Your task to perform on an android device: set the stopwatch Image 0: 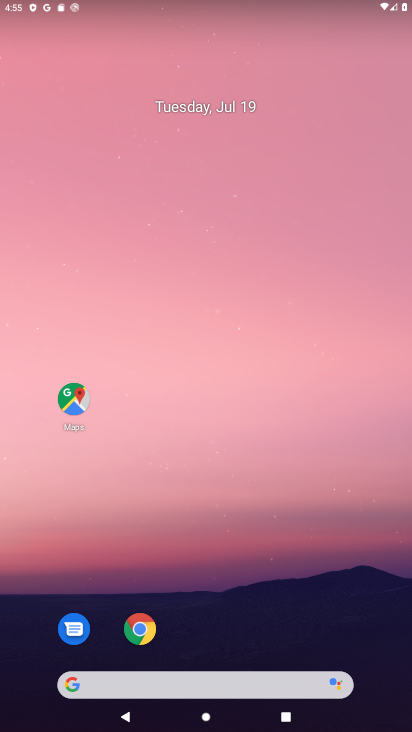
Step 0: drag from (254, 593) to (240, 171)
Your task to perform on an android device: set the stopwatch Image 1: 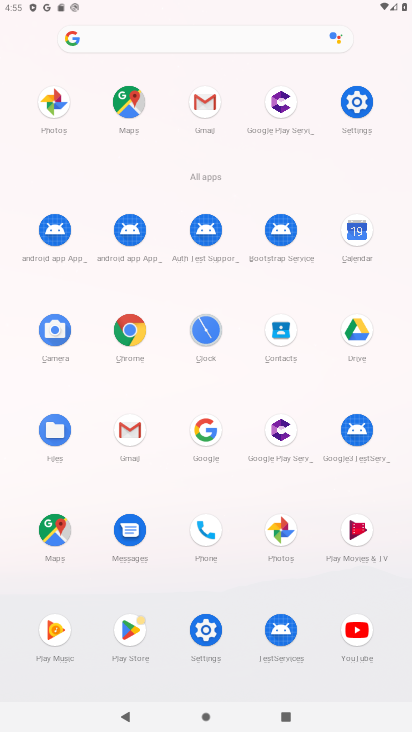
Step 1: click (212, 328)
Your task to perform on an android device: set the stopwatch Image 2: 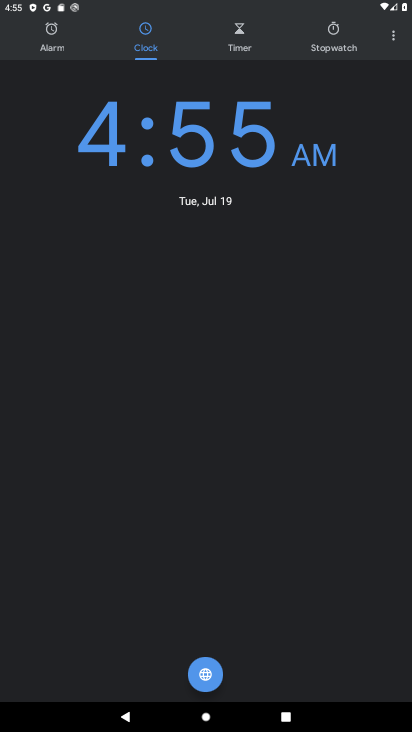
Step 2: click (349, 30)
Your task to perform on an android device: set the stopwatch Image 3: 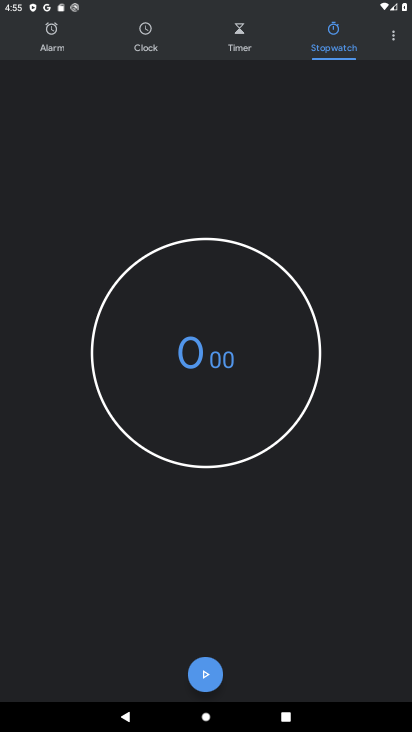
Step 3: click (197, 383)
Your task to perform on an android device: set the stopwatch Image 4: 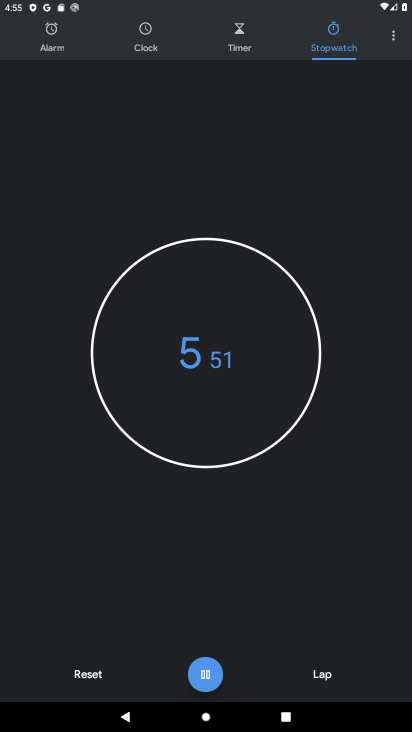
Step 4: task complete